Your task to perform on an android device: clear all cookies in the chrome app Image 0: 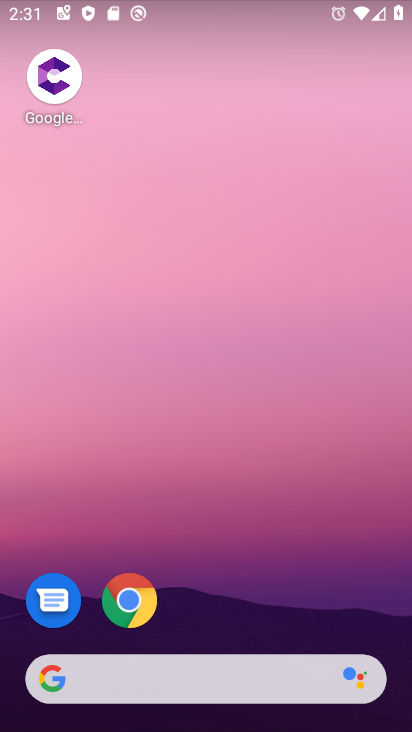
Step 0: drag from (336, 563) to (260, 28)
Your task to perform on an android device: clear all cookies in the chrome app Image 1: 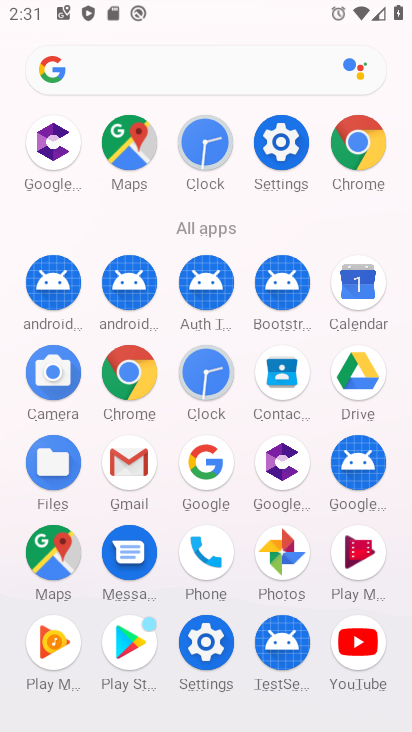
Step 1: drag from (14, 313) to (14, 185)
Your task to perform on an android device: clear all cookies in the chrome app Image 2: 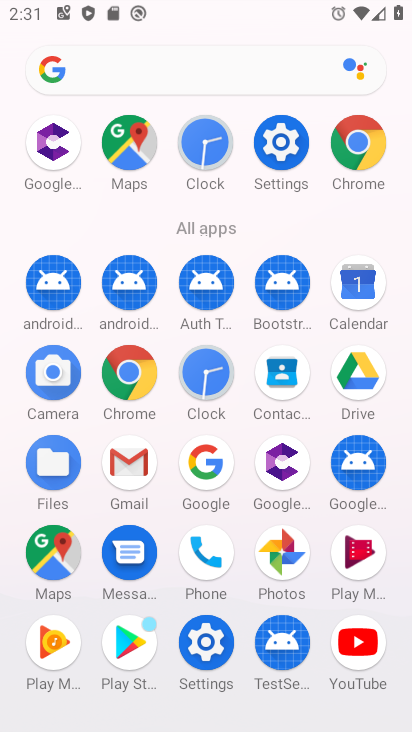
Step 2: click (362, 140)
Your task to perform on an android device: clear all cookies in the chrome app Image 3: 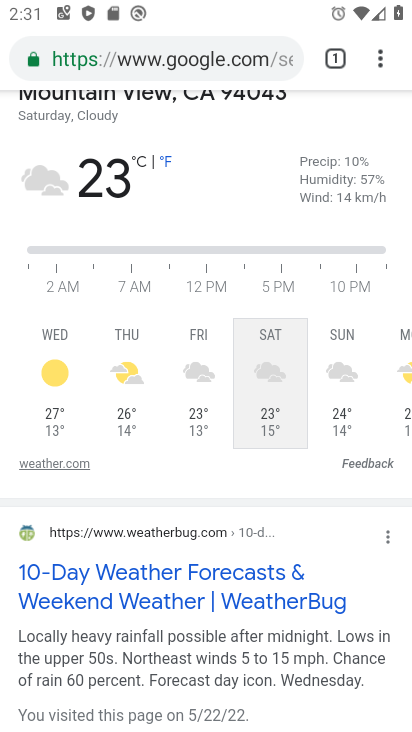
Step 3: drag from (383, 56) to (212, 640)
Your task to perform on an android device: clear all cookies in the chrome app Image 4: 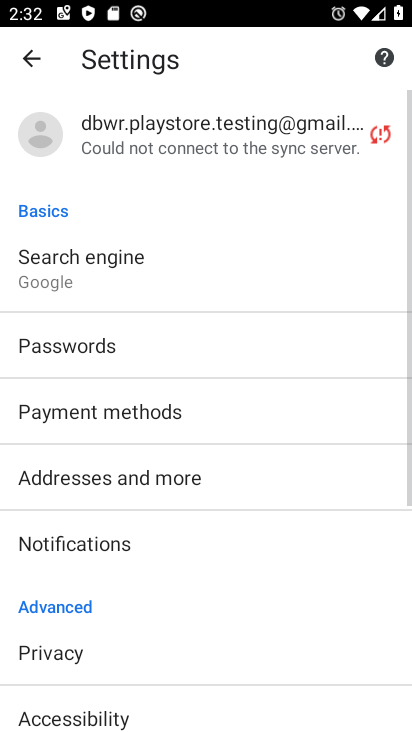
Step 4: drag from (244, 543) to (244, 138)
Your task to perform on an android device: clear all cookies in the chrome app Image 5: 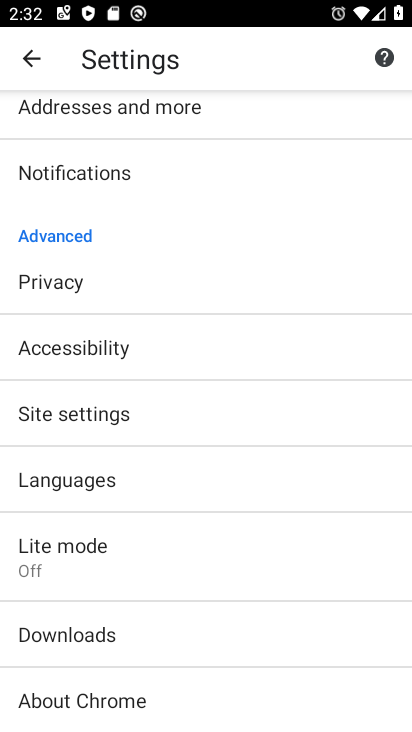
Step 5: drag from (249, 543) to (256, 202)
Your task to perform on an android device: clear all cookies in the chrome app Image 6: 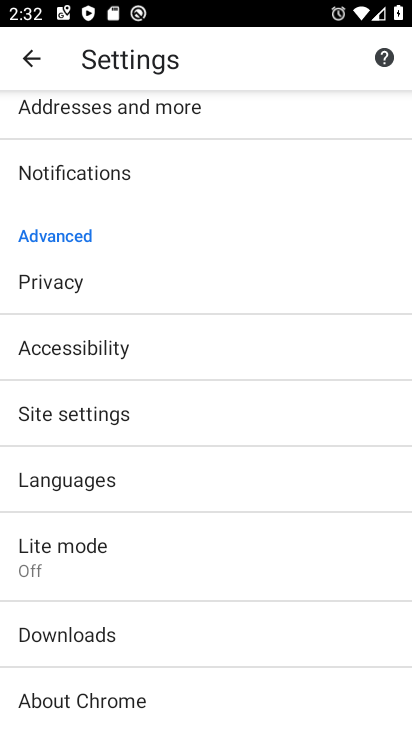
Step 6: click (103, 411)
Your task to perform on an android device: clear all cookies in the chrome app Image 7: 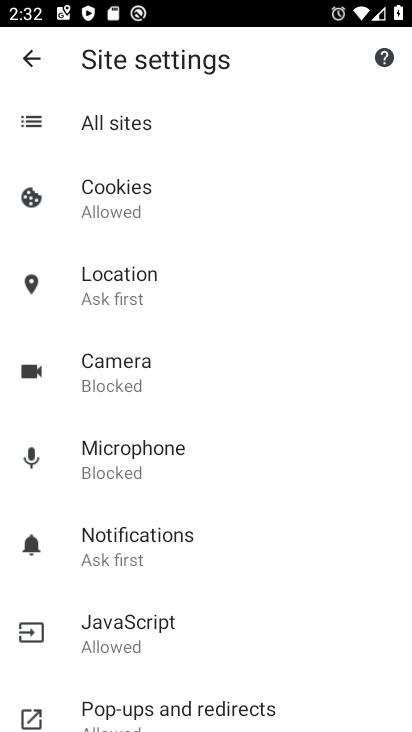
Step 7: click (163, 193)
Your task to perform on an android device: clear all cookies in the chrome app Image 8: 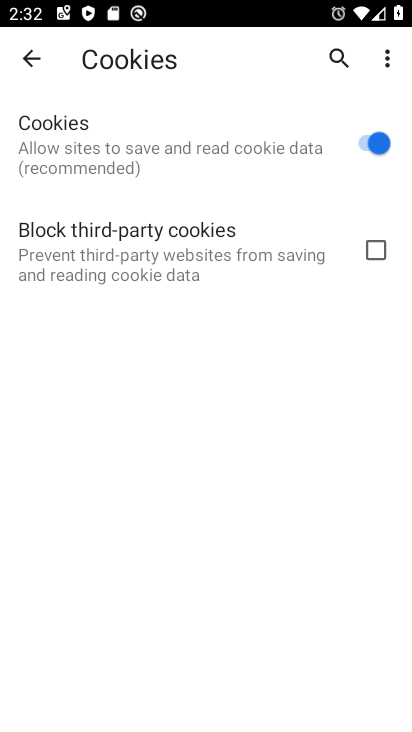
Step 8: click (27, 66)
Your task to perform on an android device: clear all cookies in the chrome app Image 9: 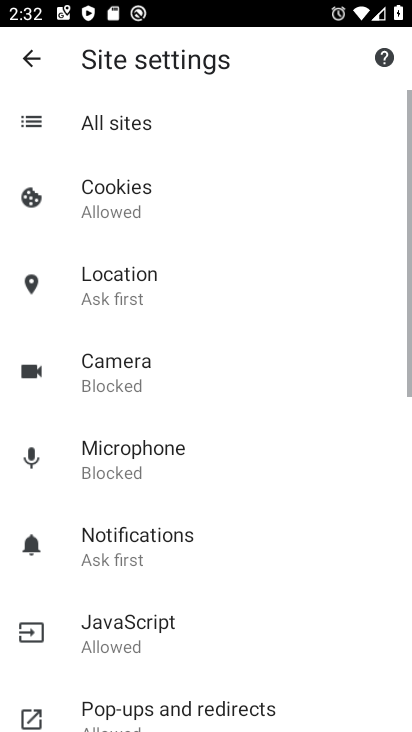
Step 9: click (27, 66)
Your task to perform on an android device: clear all cookies in the chrome app Image 10: 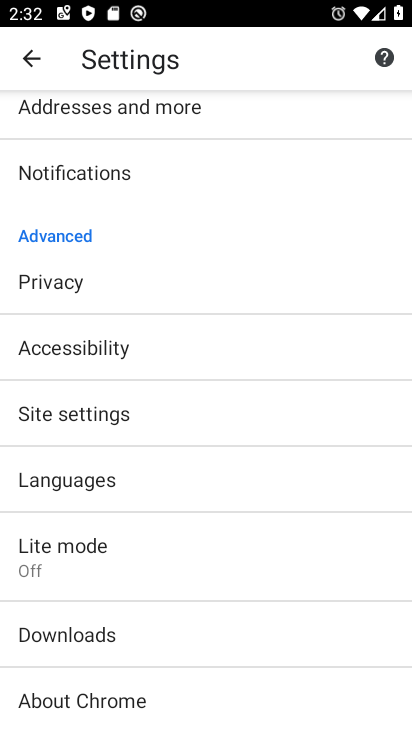
Step 10: click (102, 272)
Your task to perform on an android device: clear all cookies in the chrome app Image 11: 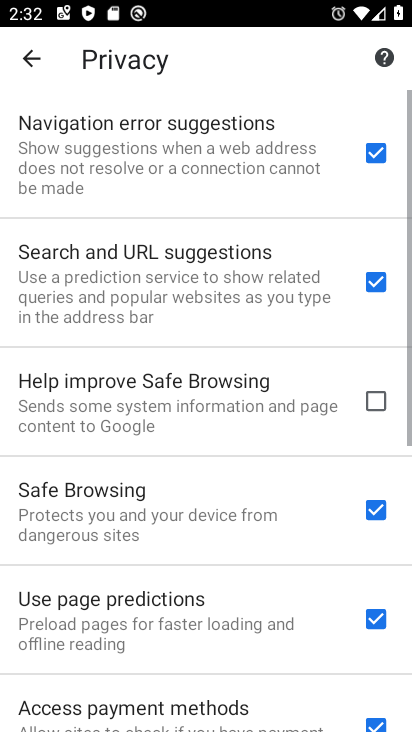
Step 11: drag from (204, 660) to (202, 166)
Your task to perform on an android device: clear all cookies in the chrome app Image 12: 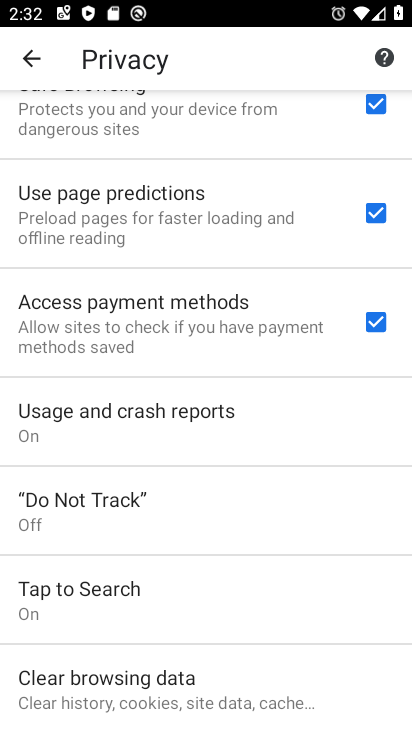
Step 12: drag from (271, 655) to (302, 192)
Your task to perform on an android device: clear all cookies in the chrome app Image 13: 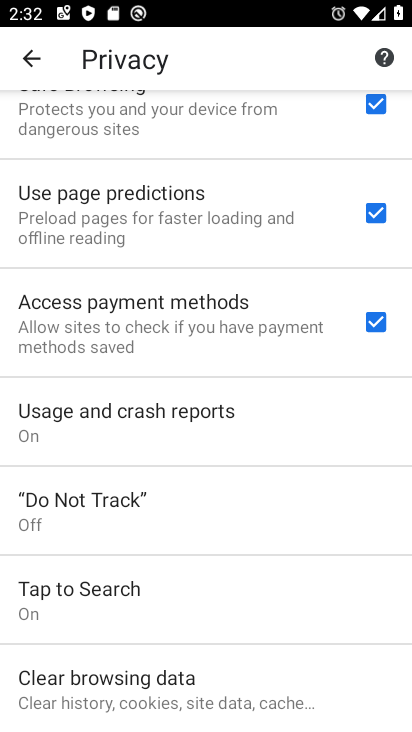
Step 13: drag from (218, 649) to (211, 194)
Your task to perform on an android device: clear all cookies in the chrome app Image 14: 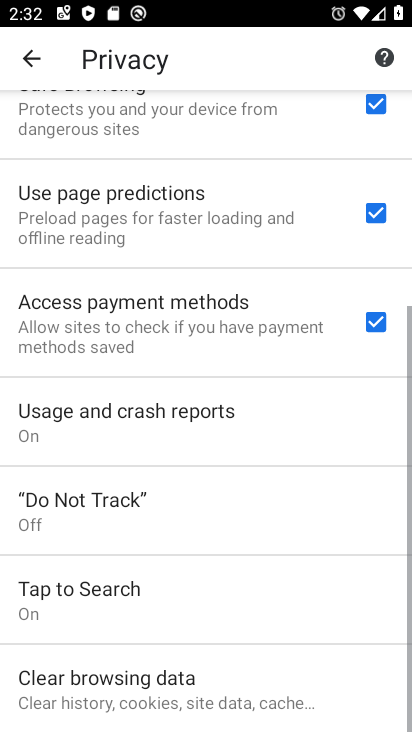
Step 14: click (188, 691)
Your task to perform on an android device: clear all cookies in the chrome app Image 15: 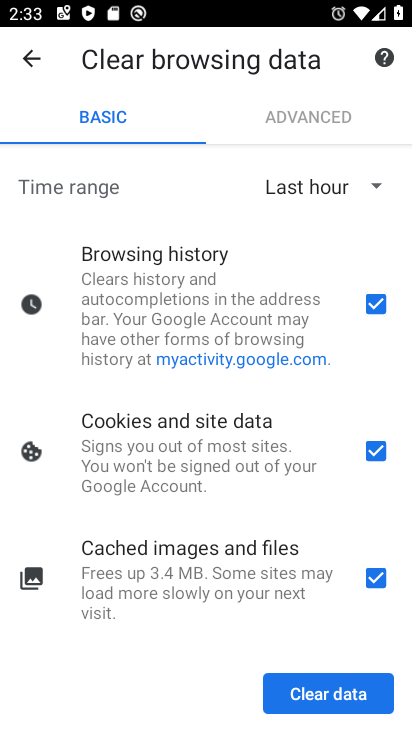
Step 15: click (321, 698)
Your task to perform on an android device: clear all cookies in the chrome app Image 16: 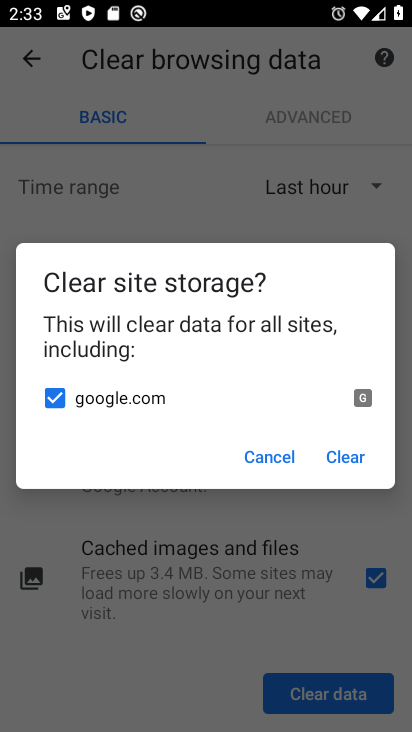
Step 16: click (342, 456)
Your task to perform on an android device: clear all cookies in the chrome app Image 17: 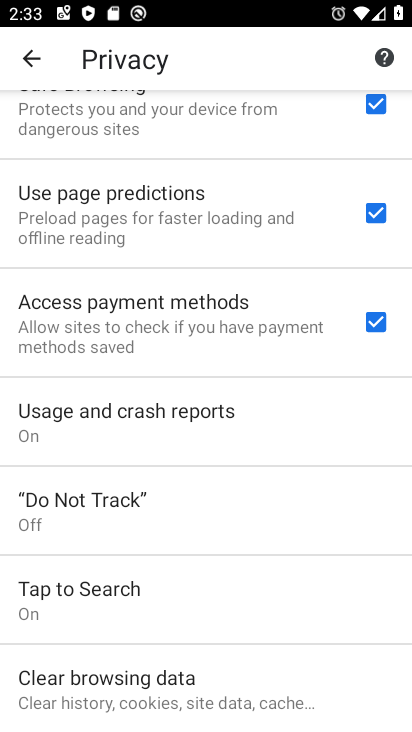
Step 17: task complete